Your task to perform on an android device: open app "VLC for Android" (install if not already installed) and enter user name: "Yves@outlook.com" and password: "internally" Image 0: 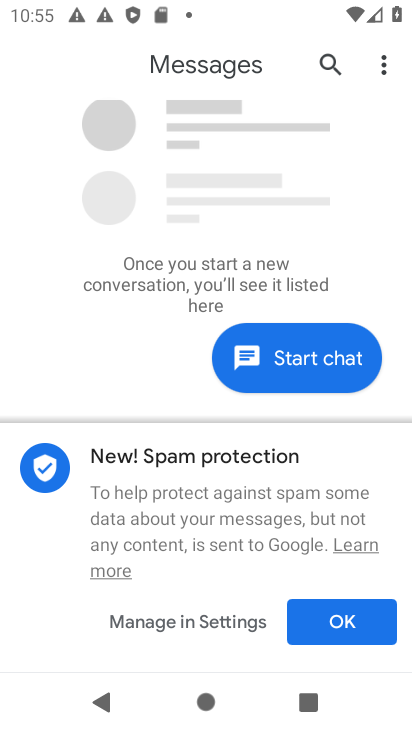
Step 0: press back button
Your task to perform on an android device: open app "VLC for Android" (install if not already installed) and enter user name: "Yves@outlook.com" and password: "internally" Image 1: 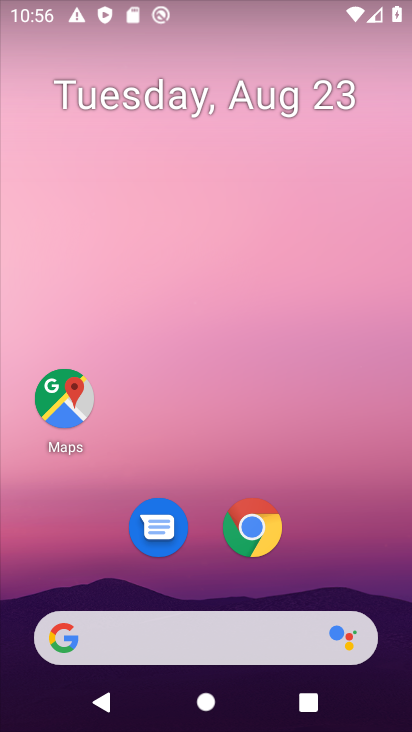
Step 1: drag from (240, 394) to (298, 85)
Your task to perform on an android device: open app "VLC for Android" (install if not already installed) and enter user name: "Yves@outlook.com" and password: "internally" Image 2: 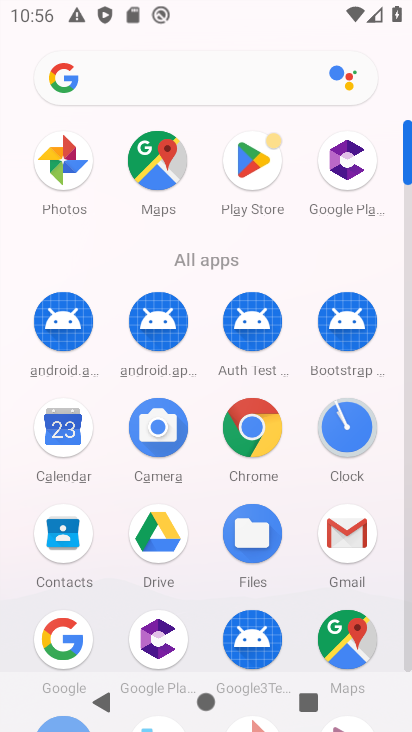
Step 2: click (264, 155)
Your task to perform on an android device: open app "VLC for Android" (install if not already installed) and enter user name: "Yves@outlook.com" and password: "internally" Image 3: 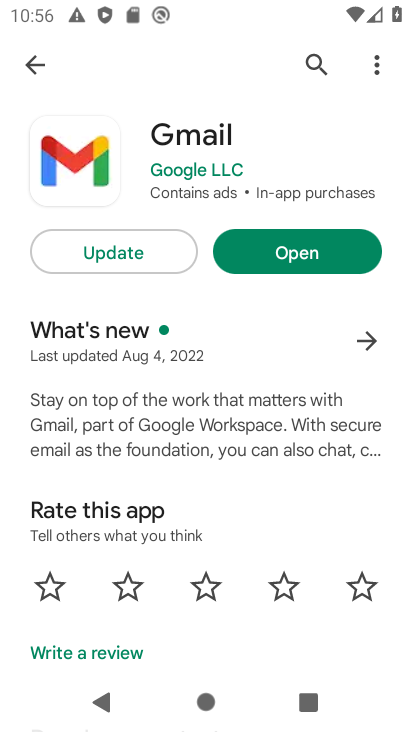
Step 3: click (308, 55)
Your task to perform on an android device: open app "VLC for Android" (install if not already installed) and enter user name: "Yves@outlook.com" and password: "internally" Image 4: 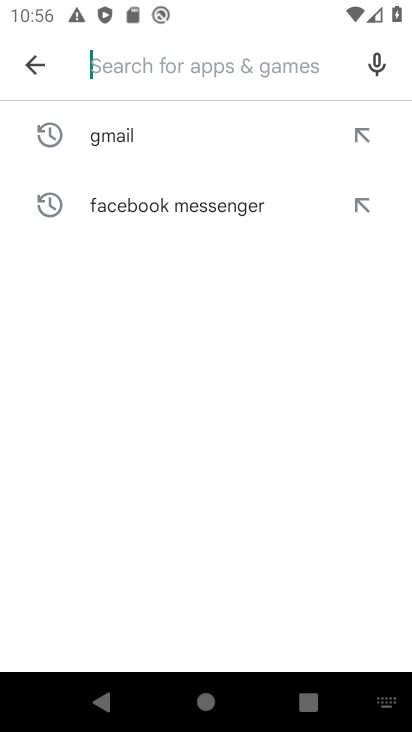
Step 4: click (132, 76)
Your task to perform on an android device: open app "VLC for Android" (install if not already installed) and enter user name: "Yves@outlook.com" and password: "internally" Image 5: 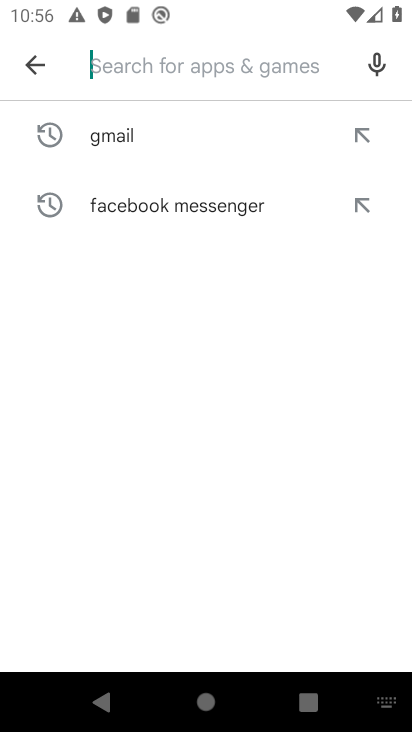
Step 5: type "VLC for Android"
Your task to perform on an android device: open app "VLC for Android" (install if not already installed) and enter user name: "Yves@outlook.com" and password: "internally" Image 6: 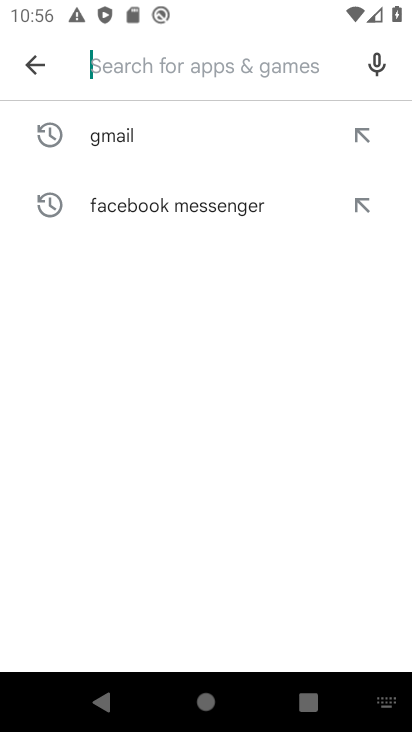
Step 6: click (263, 470)
Your task to perform on an android device: open app "VLC for Android" (install if not already installed) and enter user name: "Yves@outlook.com" and password: "internally" Image 7: 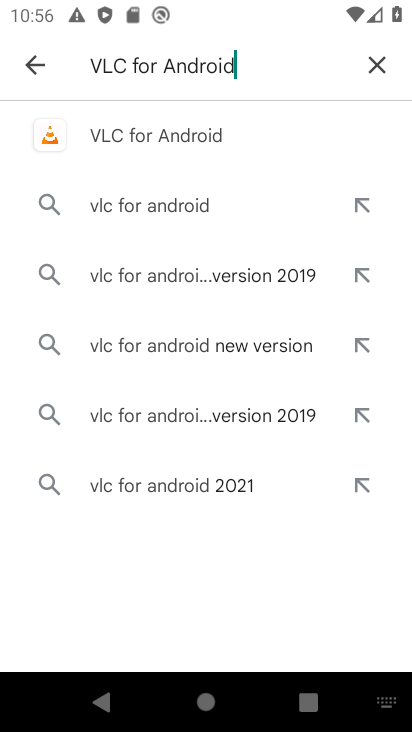
Step 7: click (131, 128)
Your task to perform on an android device: open app "VLC for Android" (install if not already installed) and enter user name: "Yves@outlook.com" and password: "internally" Image 8: 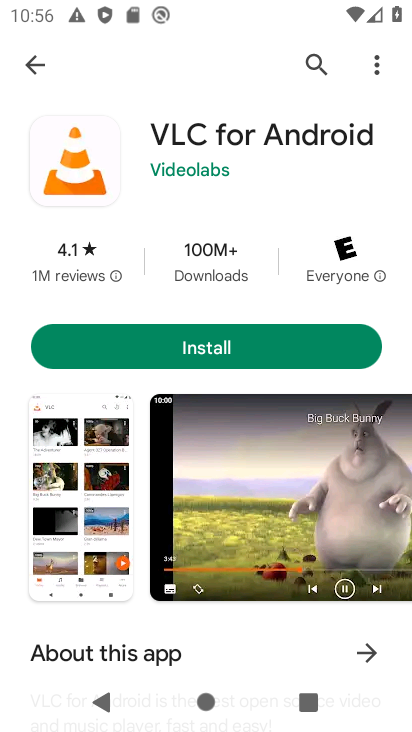
Step 8: click (279, 341)
Your task to perform on an android device: open app "VLC for Android" (install if not already installed) and enter user name: "Yves@outlook.com" and password: "internally" Image 9: 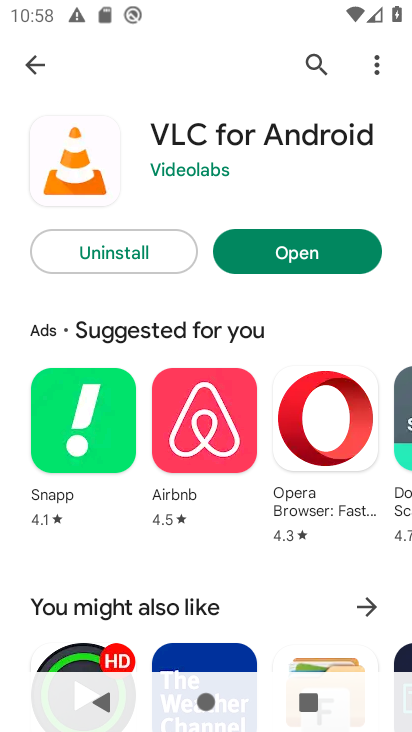
Step 9: click (299, 263)
Your task to perform on an android device: open app "VLC for Android" (install if not already installed) and enter user name: "Yves@outlook.com" and password: "internally" Image 10: 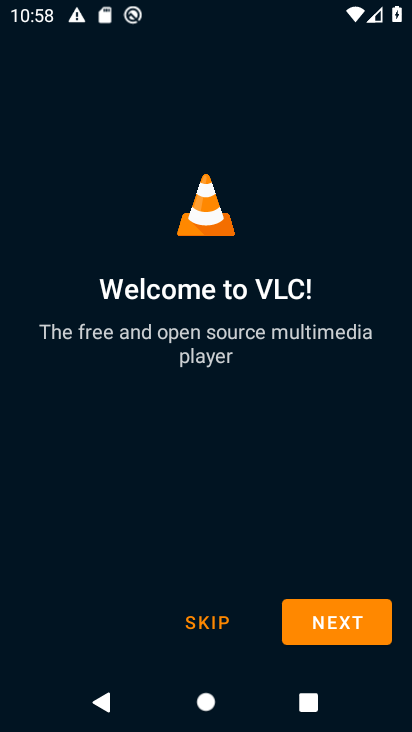
Step 10: click (205, 627)
Your task to perform on an android device: open app "VLC for Android" (install if not already installed) and enter user name: "Yves@outlook.com" and password: "internally" Image 11: 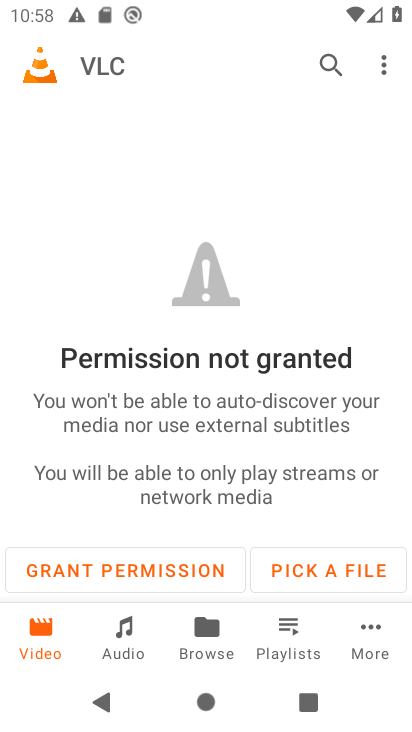
Step 11: click (371, 623)
Your task to perform on an android device: open app "VLC for Android" (install if not already installed) and enter user name: "Yves@outlook.com" and password: "internally" Image 12: 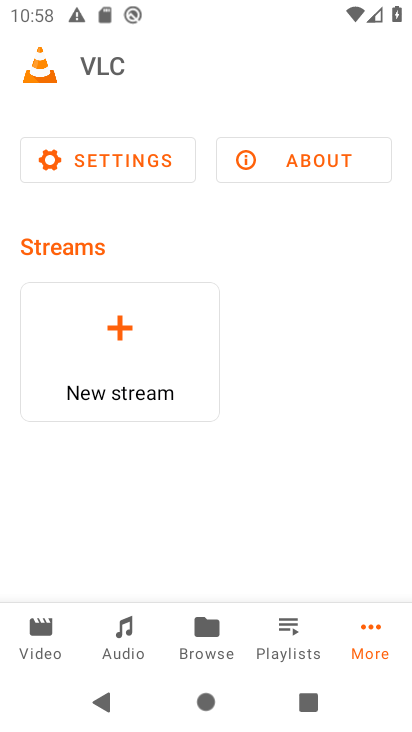
Step 12: task complete